Your task to perform on an android device: set an alarm Image 0: 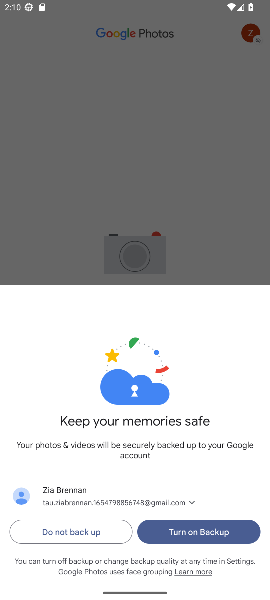
Step 0: press home button
Your task to perform on an android device: set an alarm Image 1: 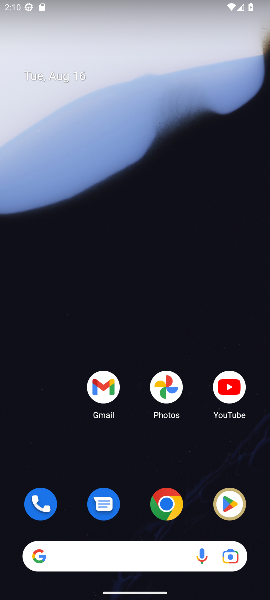
Step 1: drag from (138, 519) to (134, 154)
Your task to perform on an android device: set an alarm Image 2: 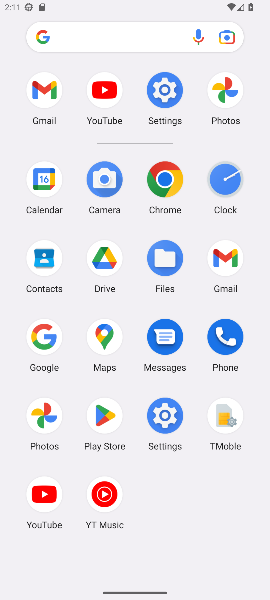
Step 2: click (226, 180)
Your task to perform on an android device: set an alarm Image 3: 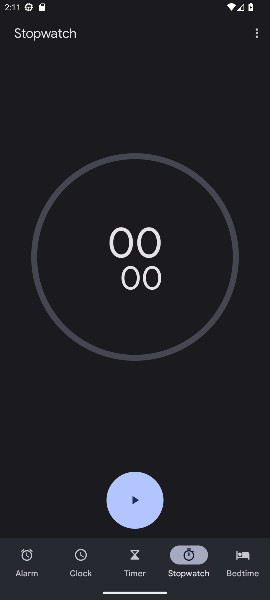
Step 3: click (25, 557)
Your task to perform on an android device: set an alarm Image 4: 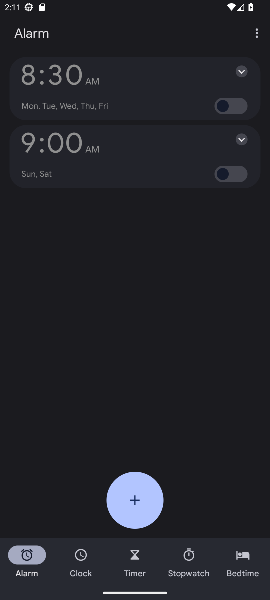
Step 4: click (134, 502)
Your task to perform on an android device: set an alarm Image 5: 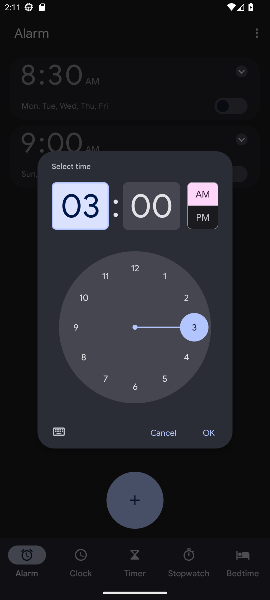
Step 5: click (210, 430)
Your task to perform on an android device: set an alarm Image 6: 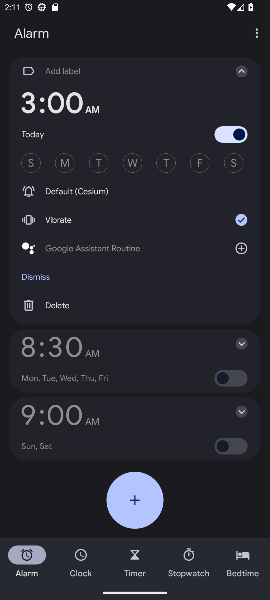
Step 6: task complete